Your task to perform on an android device: Open the map Image 0: 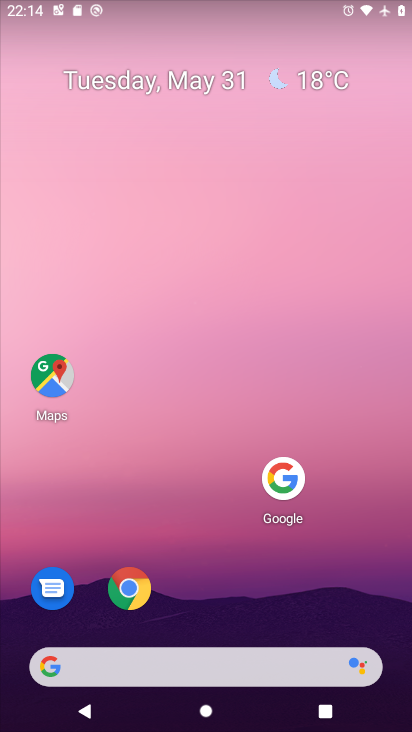
Step 0: click (50, 377)
Your task to perform on an android device: Open the map Image 1: 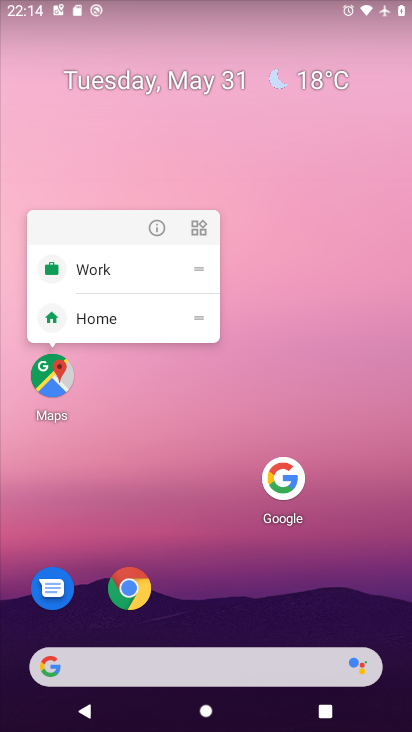
Step 1: click (51, 374)
Your task to perform on an android device: Open the map Image 2: 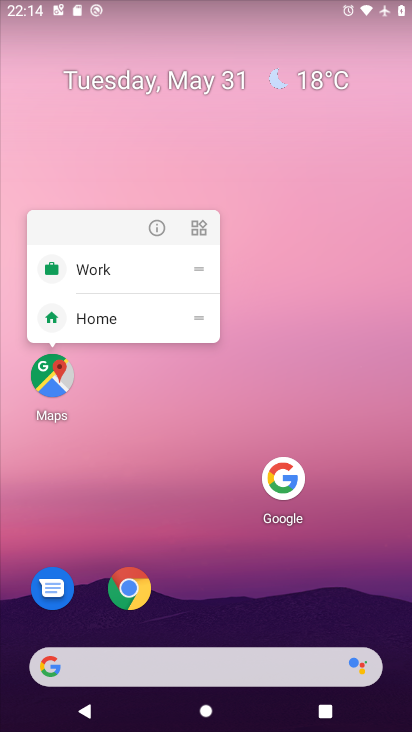
Step 2: click (51, 382)
Your task to perform on an android device: Open the map Image 3: 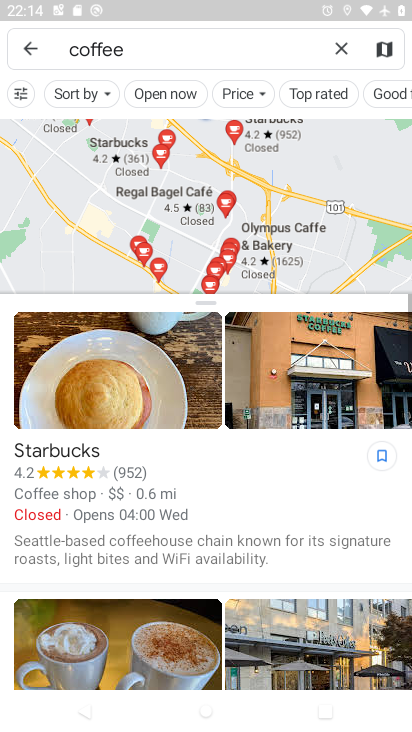
Step 3: click (29, 46)
Your task to perform on an android device: Open the map Image 4: 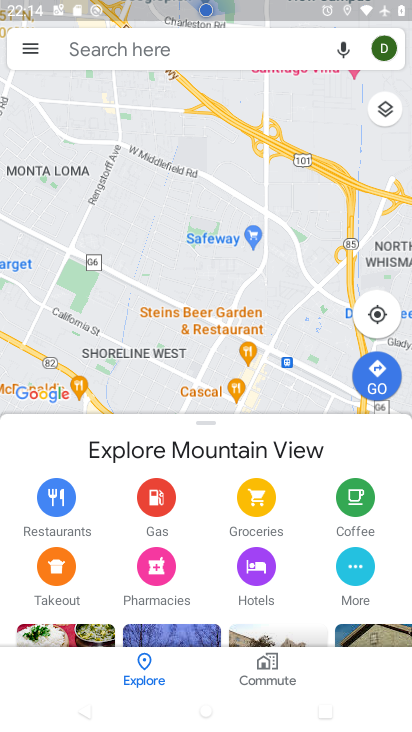
Step 4: task complete